Your task to perform on an android device: find photos in the google photos app Image 0: 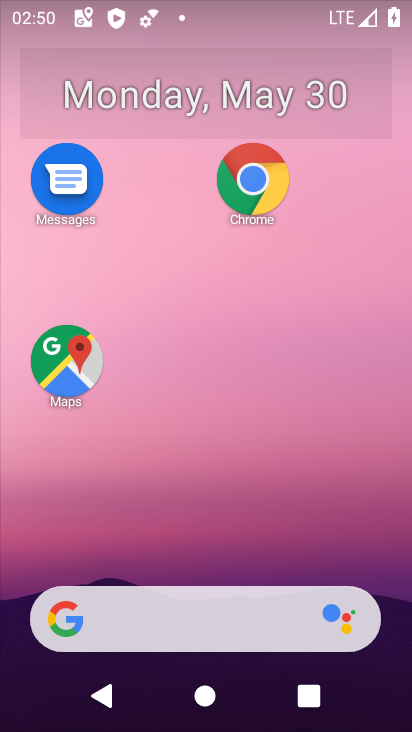
Step 0: drag from (263, 554) to (208, 115)
Your task to perform on an android device: find photos in the google photos app Image 1: 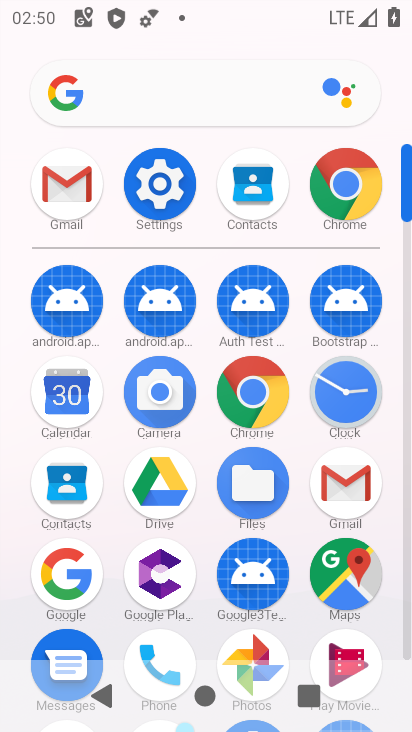
Step 1: drag from (207, 617) to (195, 232)
Your task to perform on an android device: find photos in the google photos app Image 2: 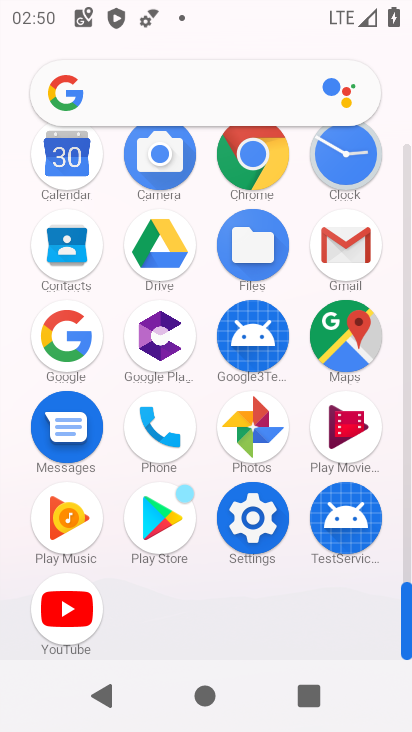
Step 2: click (254, 440)
Your task to perform on an android device: find photos in the google photos app Image 3: 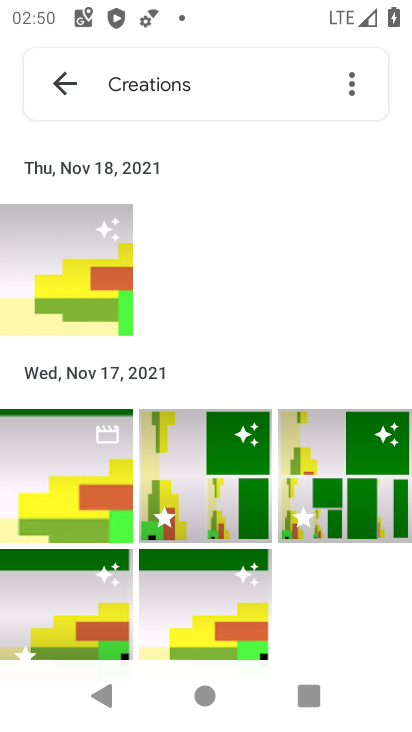
Step 3: task complete